Your task to perform on an android device: change the clock display to digital Image 0: 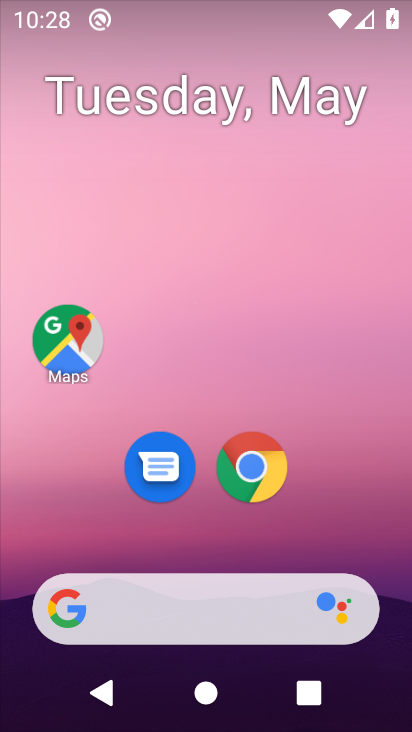
Step 0: click (183, 206)
Your task to perform on an android device: change the clock display to digital Image 1: 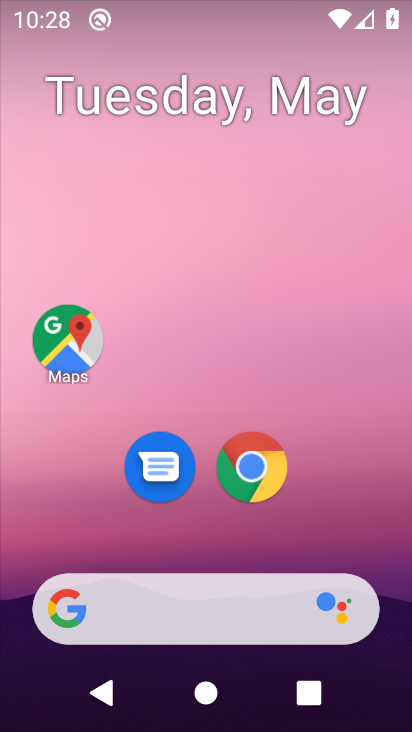
Step 1: drag from (197, 554) to (215, 112)
Your task to perform on an android device: change the clock display to digital Image 2: 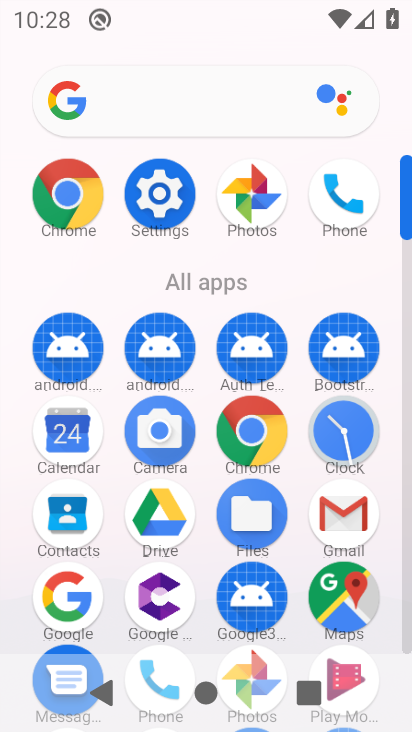
Step 2: click (175, 206)
Your task to perform on an android device: change the clock display to digital Image 3: 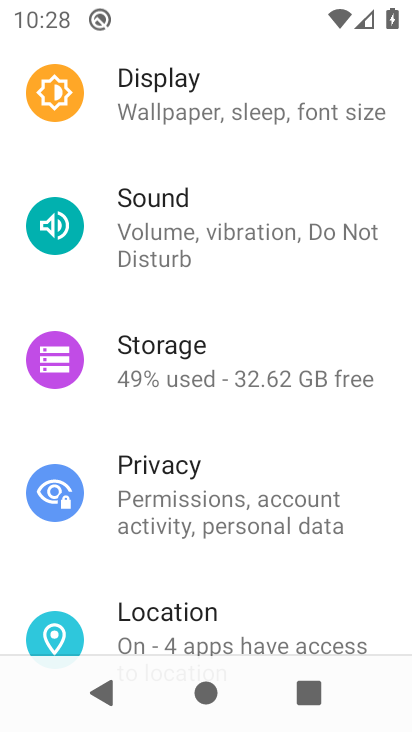
Step 3: drag from (179, 202) to (323, 571)
Your task to perform on an android device: change the clock display to digital Image 4: 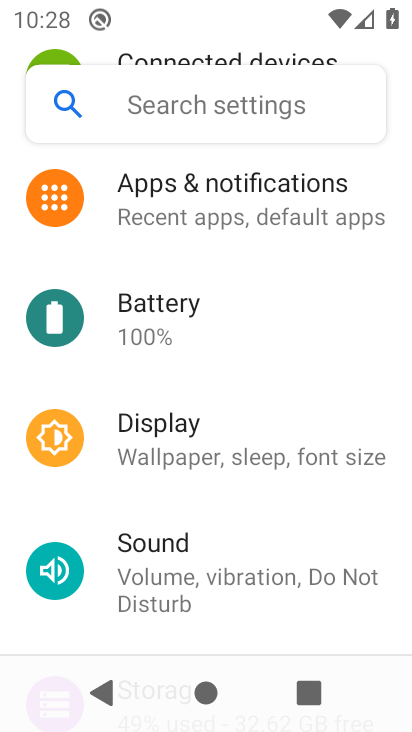
Step 4: drag from (197, 305) to (325, 602)
Your task to perform on an android device: change the clock display to digital Image 5: 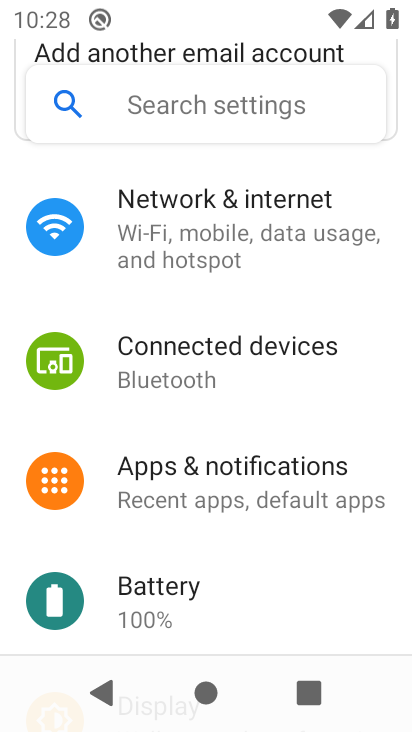
Step 5: press home button
Your task to perform on an android device: change the clock display to digital Image 6: 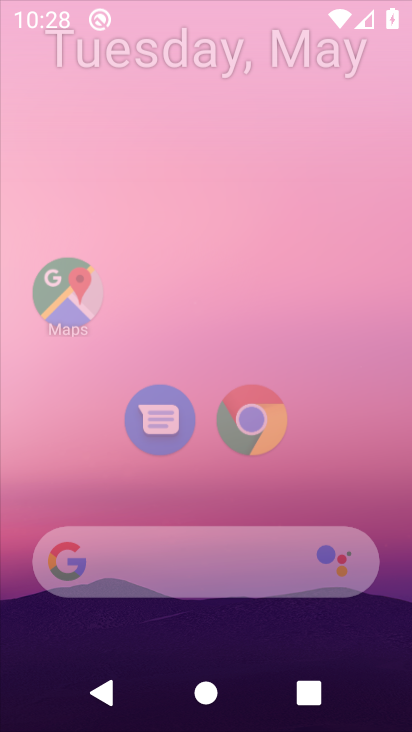
Step 6: click (324, 22)
Your task to perform on an android device: change the clock display to digital Image 7: 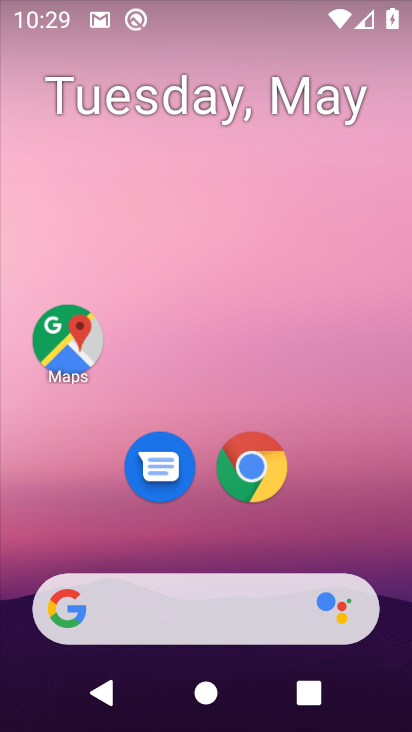
Step 7: drag from (283, 24) to (204, 5)
Your task to perform on an android device: change the clock display to digital Image 8: 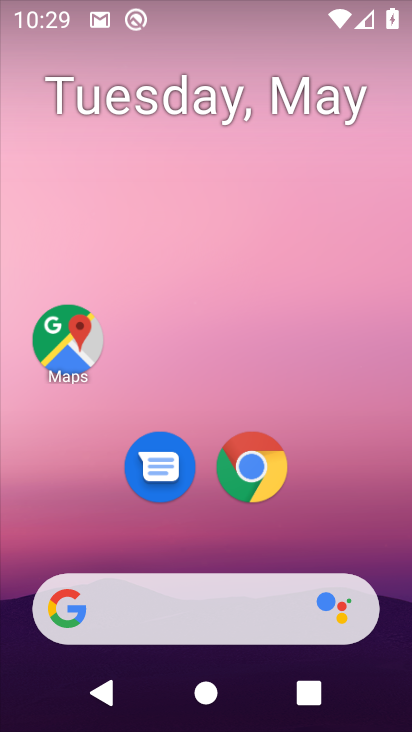
Step 8: click (339, 403)
Your task to perform on an android device: change the clock display to digital Image 9: 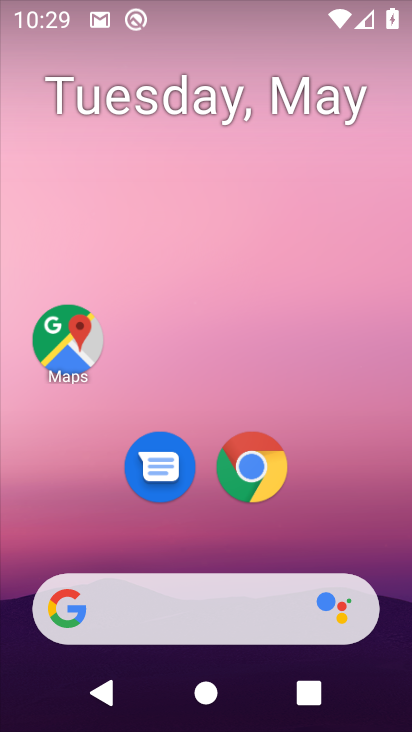
Step 9: drag from (237, 541) to (248, 57)
Your task to perform on an android device: change the clock display to digital Image 10: 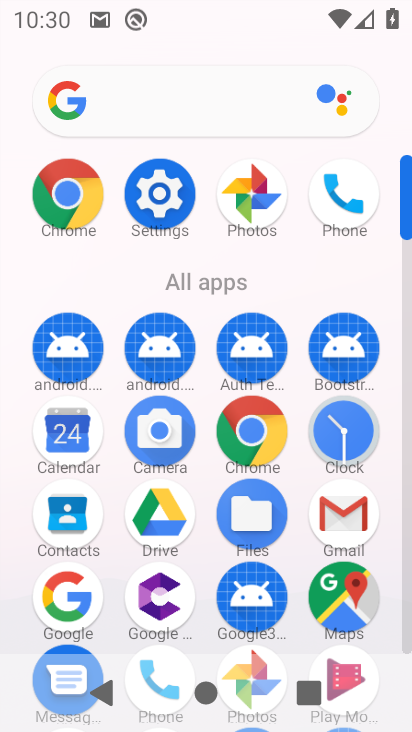
Step 10: click (366, 432)
Your task to perform on an android device: change the clock display to digital Image 11: 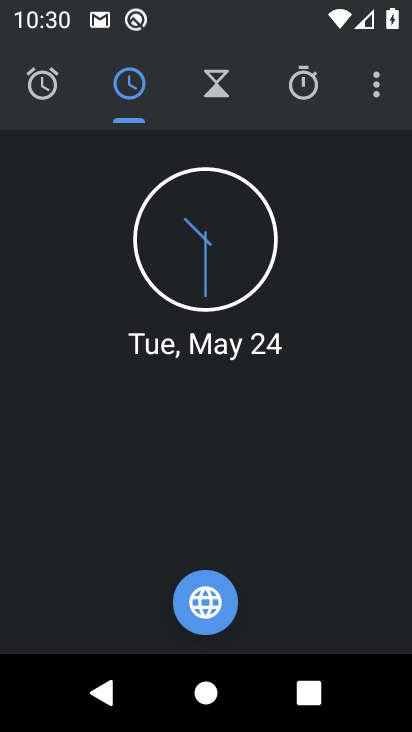
Step 11: click (381, 90)
Your task to perform on an android device: change the clock display to digital Image 12: 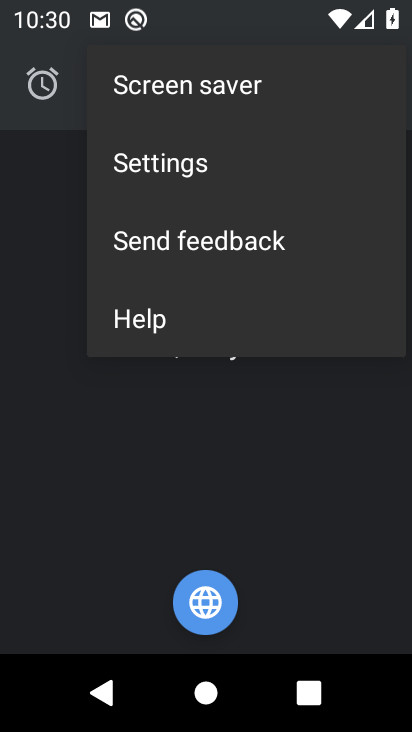
Step 12: click (215, 175)
Your task to perform on an android device: change the clock display to digital Image 13: 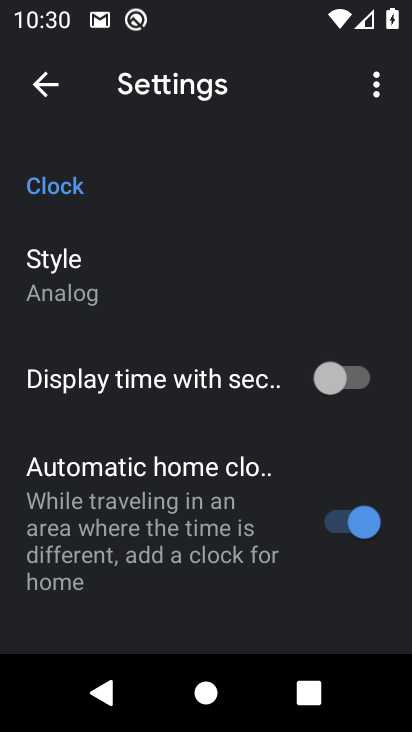
Step 13: click (347, 367)
Your task to perform on an android device: change the clock display to digital Image 14: 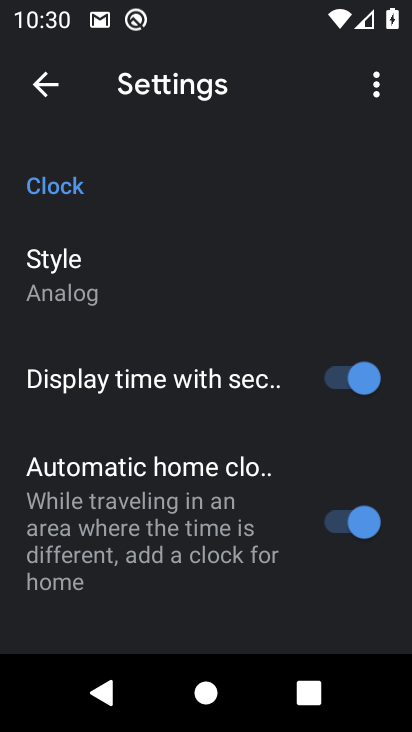
Step 14: task complete